Your task to perform on an android device: Is it going to rain today? Image 0: 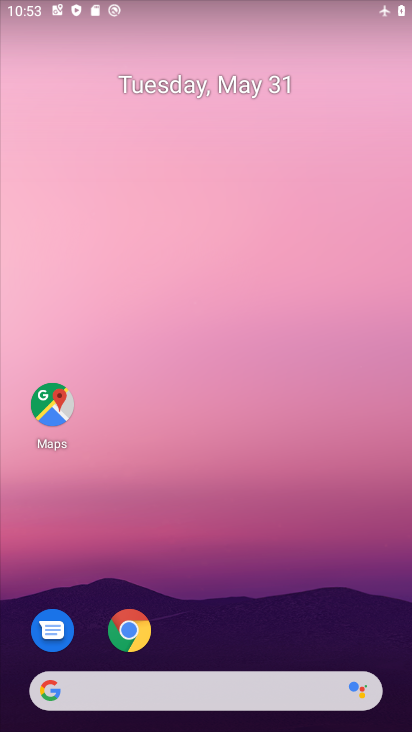
Step 0: drag from (218, 685) to (206, 222)
Your task to perform on an android device: Is it going to rain today? Image 1: 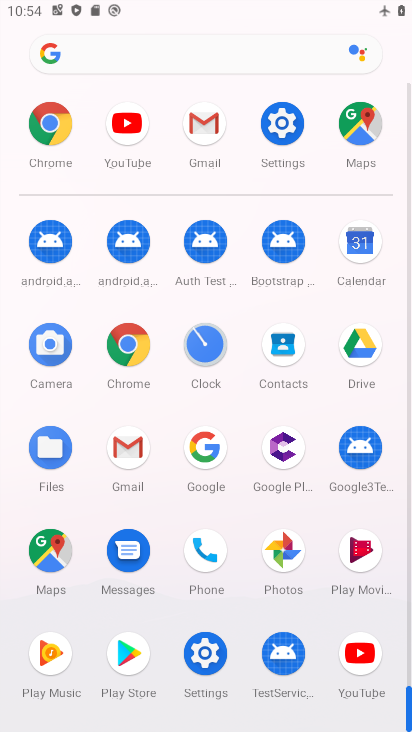
Step 1: click (205, 474)
Your task to perform on an android device: Is it going to rain today? Image 2: 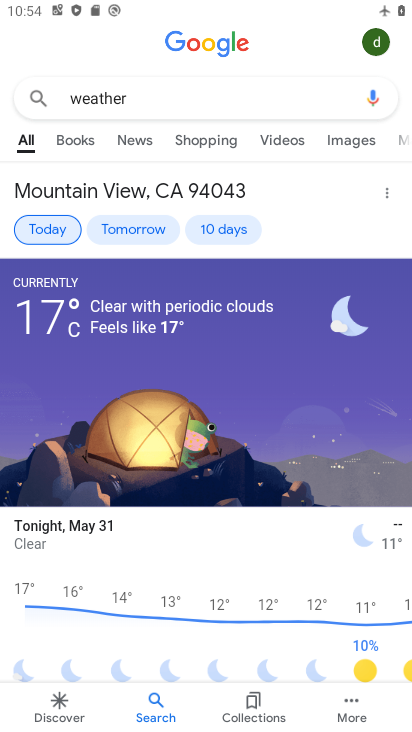
Step 2: task complete